Your task to perform on an android device: open wifi settings Image 0: 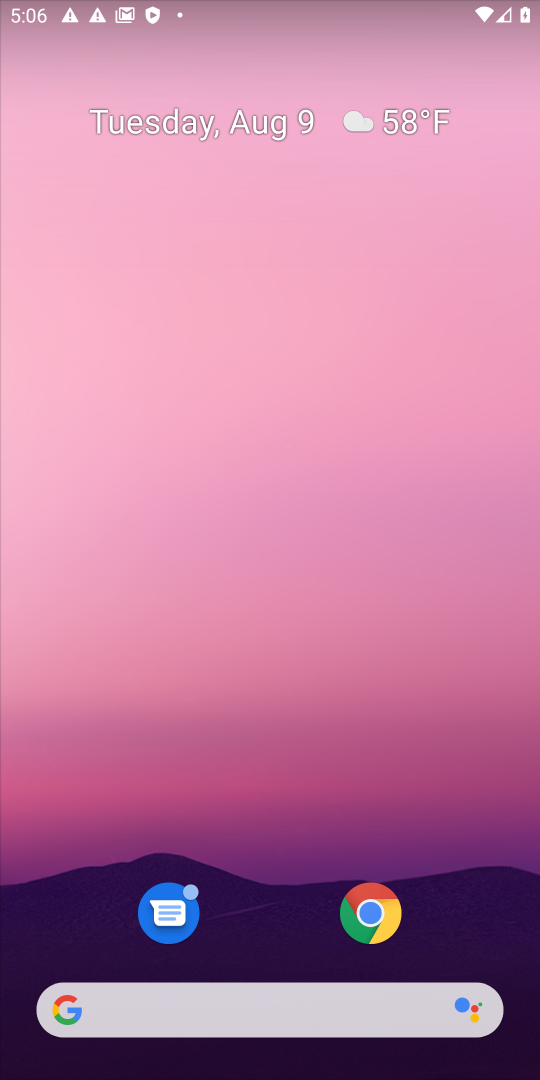
Step 0: drag from (236, 863) to (264, 8)
Your task to perform on an android device: open wifi settings Image 1: 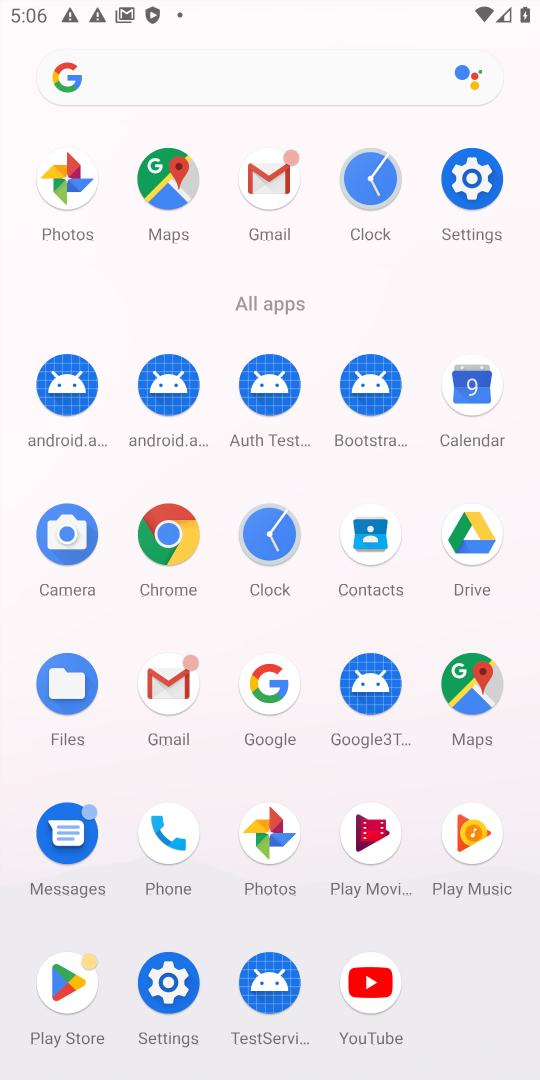
Step 1: click (474, 190)
Your task to perform on an android device: open wifi settings Image 2: 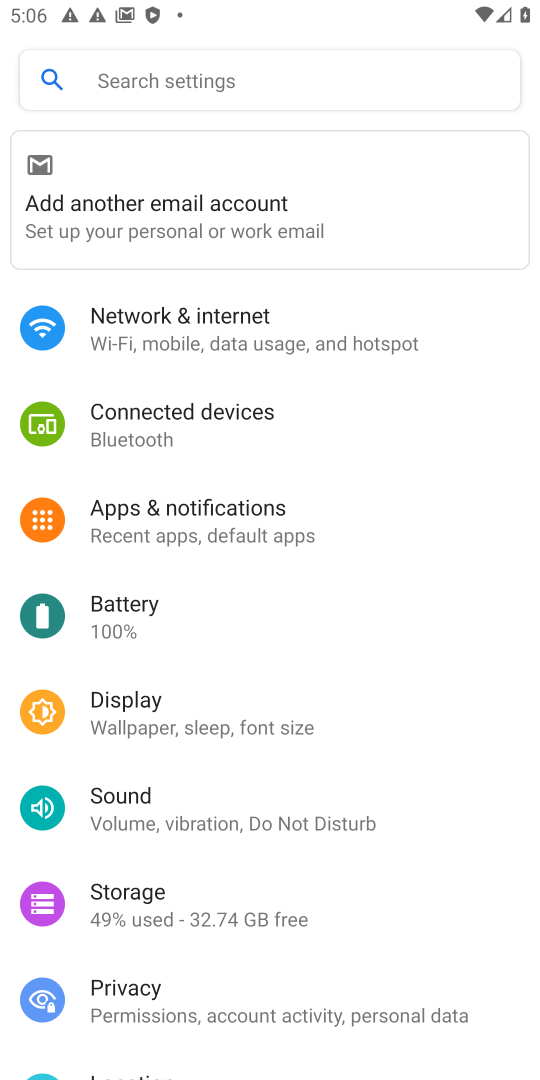
Step 2: click (169, 345)
Your task to perform on an android device: open wifi settings Image 3: 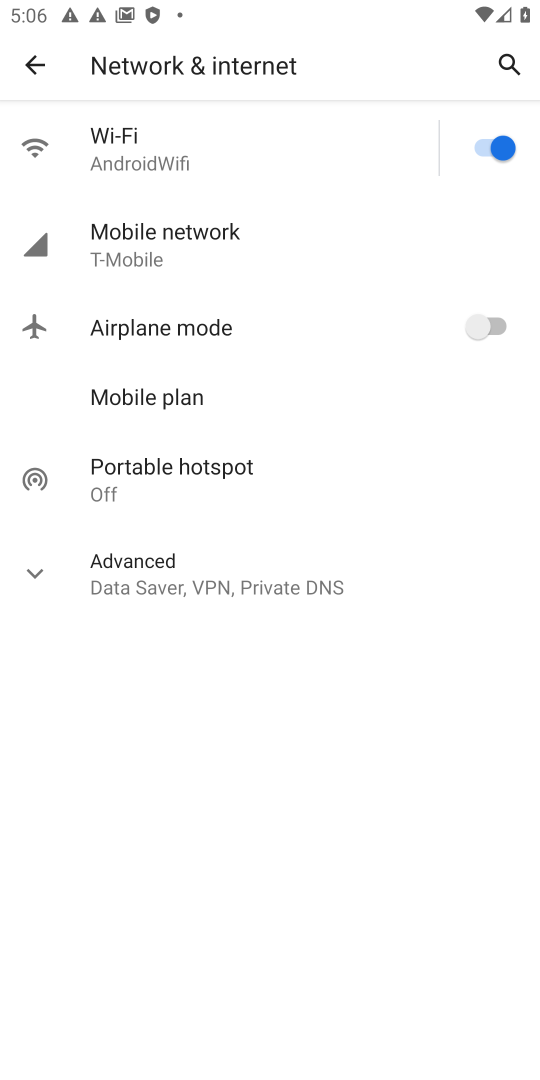
Step 3: click (87, 138)
Your task to perform on an android device: open wifi settings Image 4: 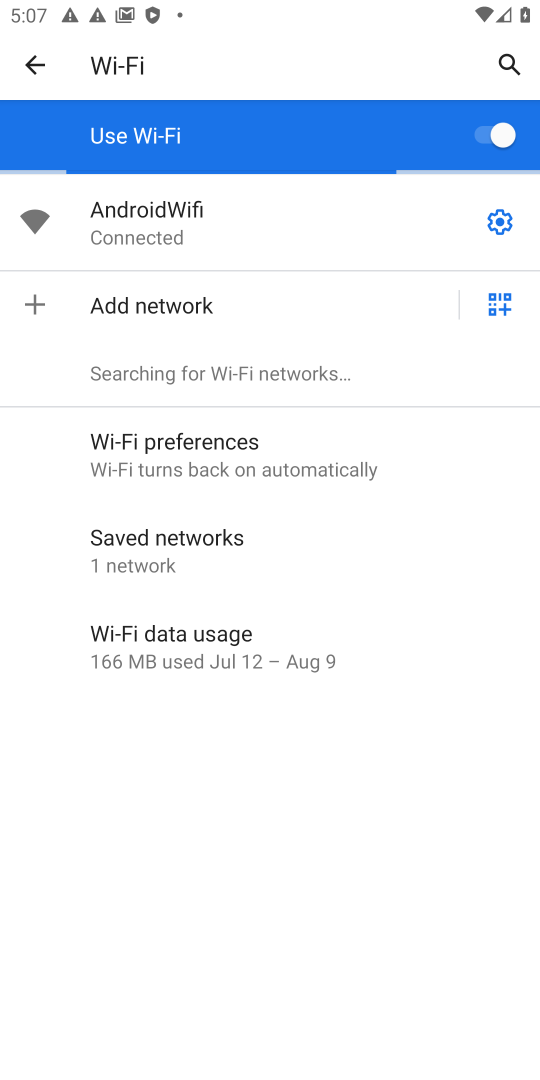
Step 4: task complete